Your task to perform on an android device: clear history in the chrome app Image 0: 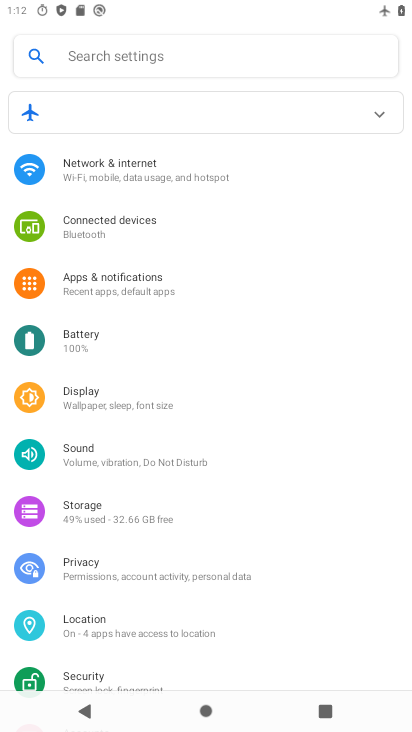
Step 0: press back button
Your task to perform on an android device: clear history in the chrome app Image 1: 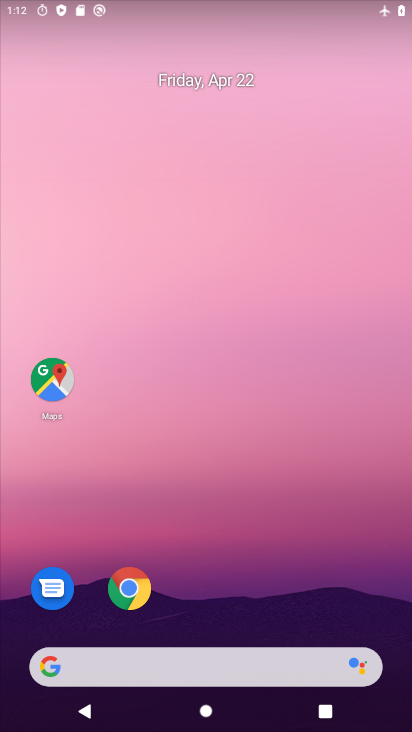
Step 1: click (114, 602)
Your task to perform on an android device: clear history in the chrome app Image 2: 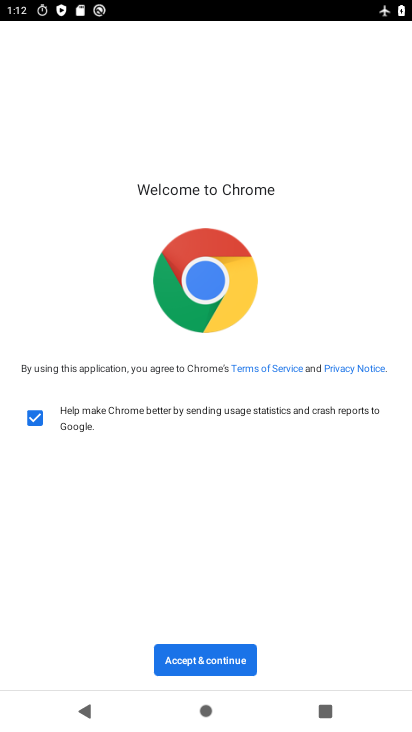
Step 2: click (224, 654)
Your task to perform on an android device: clear history in the chrome app Image 3: 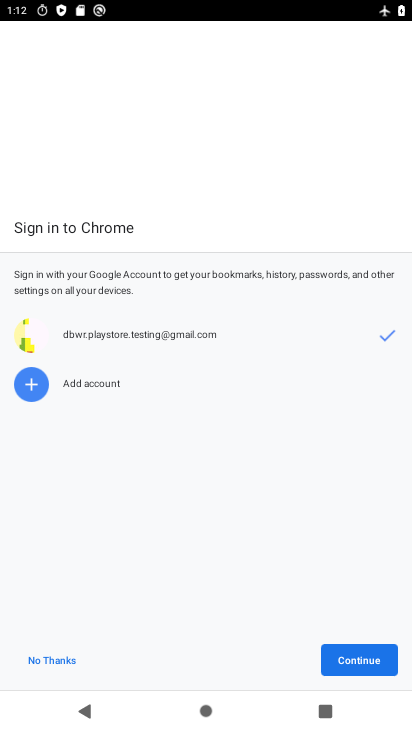
Step 3: click (353, 660)
Your task to perform on an android device: clear history in the chrome app Image 4: 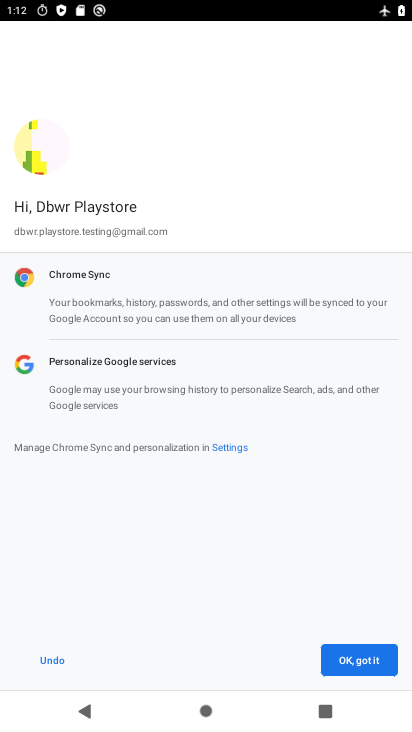
Step 4: click (353, 660)
Your task to perform on an android device: clear history in the chrome app Image 5: 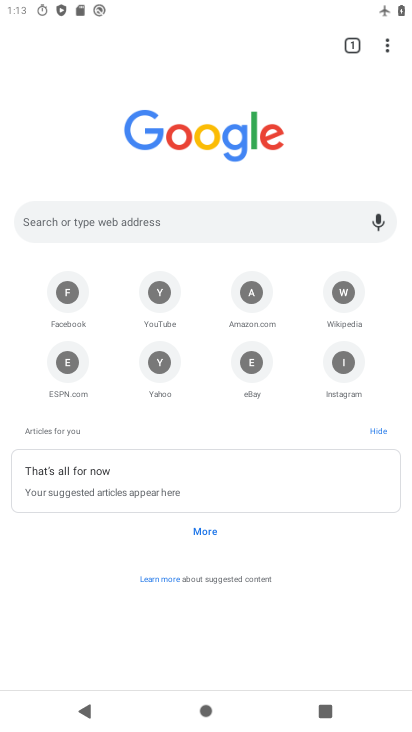
Step 5: click (381, 44)
Your task to perform on an android device: clear history in the chrome app Image 6: 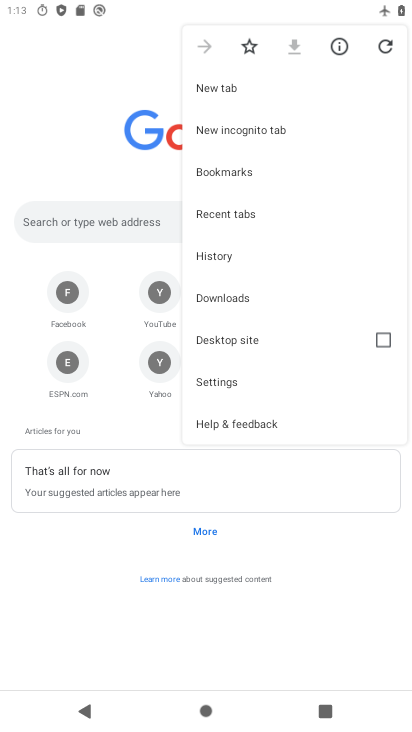
Step 6: click (215, 255)
Your task to perform on an android device: clear history in the chrome app Image 7: 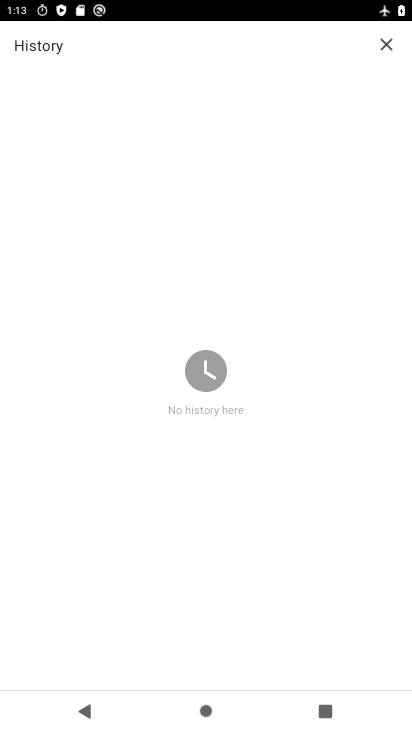
Step 7: task complete